Your task to perform on an android device: Is it going to rain this weekend? Image 0: 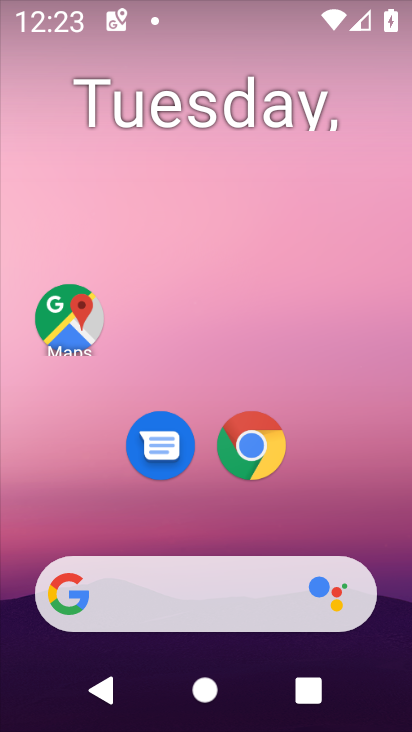
Step 0: click (165, 601)
Your task to perform on an android device: Is it going to rain this weekend? Image 1: 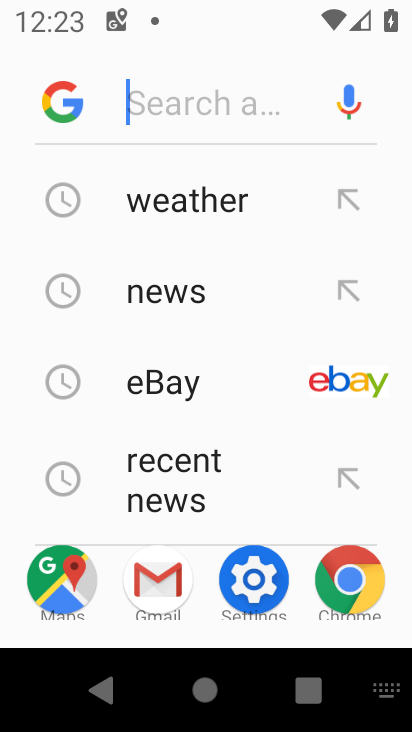
Step 1: click (222, 213)
Your task to perform on an android device: Is it going to rain this weekend? Image 2: 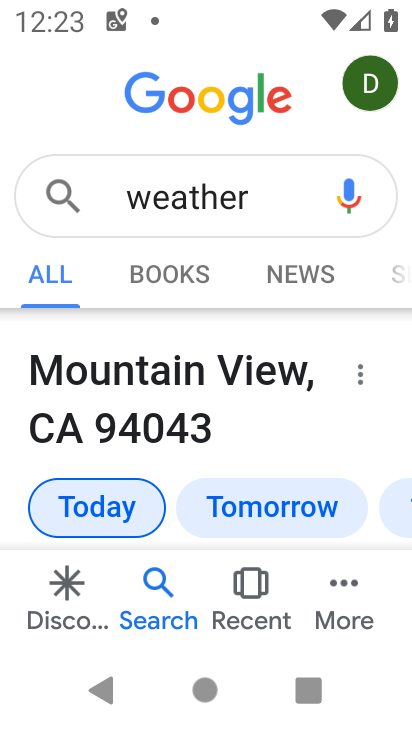
Step 2: task complete